Your task to perform on an android device: set the timer Image 0: 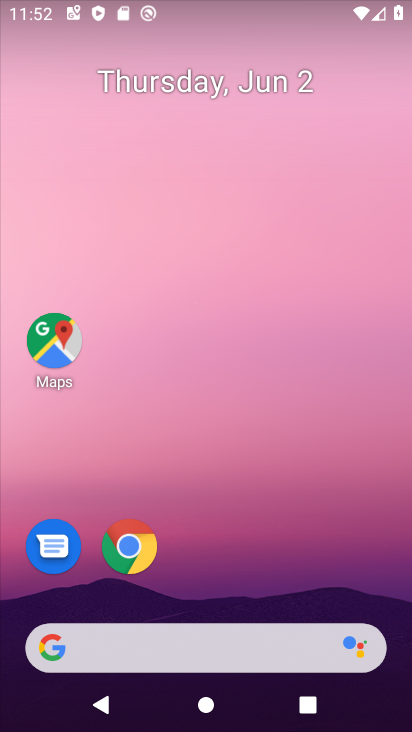
Step 0: drag from (193, 614) to (279, 211)
Your task to perform on an android device: set the timer Image 1: 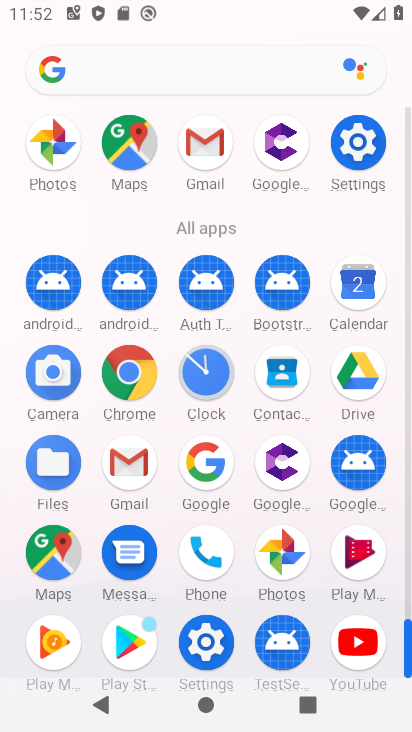
Step 1: click (217, 392)
Your task to perform on an android device: set the timer Image 2: 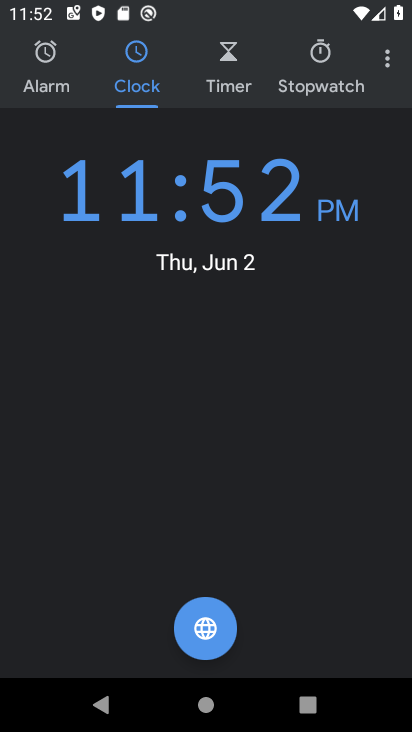
Step 2: click (238, 45)
Your task to perform on an android device: set the timer Image 3: 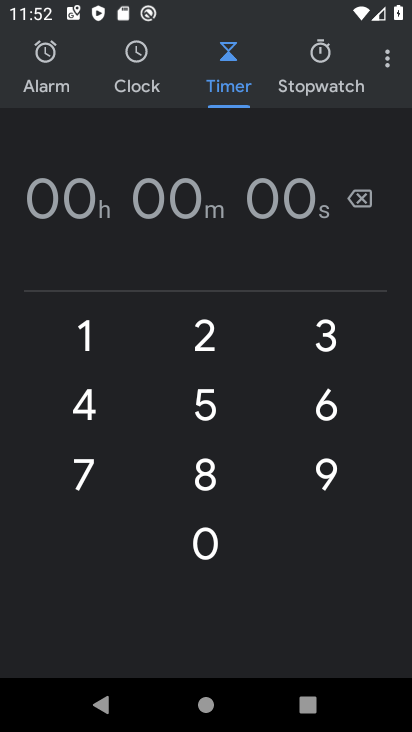
Step 3: click (232, 349)
Your task to perform on an android device: set the timer Image 4: 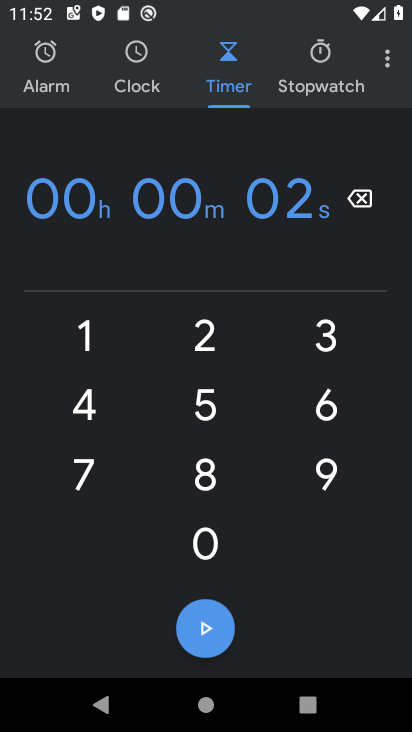
Step 4: click (232, 349)
Your task to perform on an android device: set the timer Image 5: 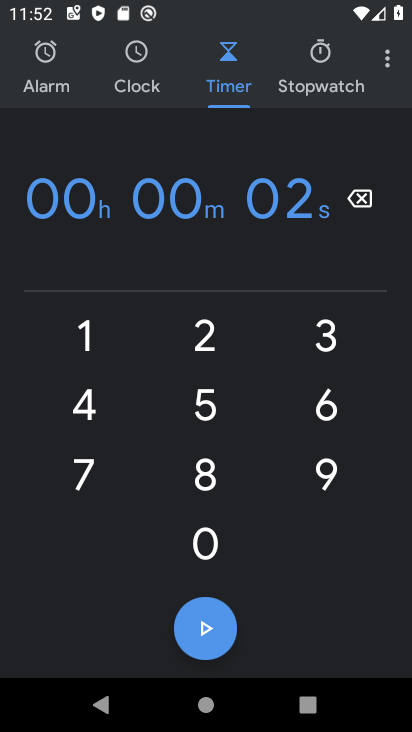
Step 5: click (232, 349)
Your task to perform on an android device: set the timer Image 6: 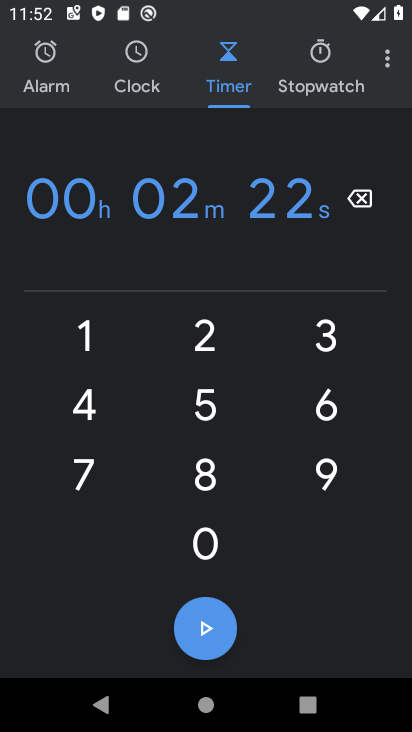
Step 6: click (231, 645)
Your task to perform on an android device: set the timer Image 7: 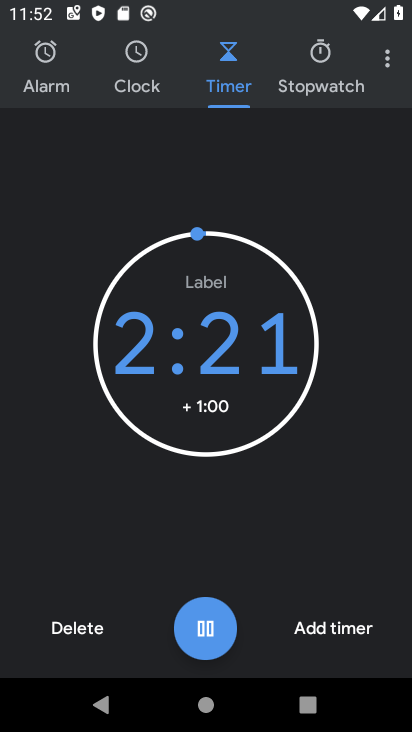
Step 7: task complete